Your task to perform on an android device: toggle data saver in the chrome app Image 0: 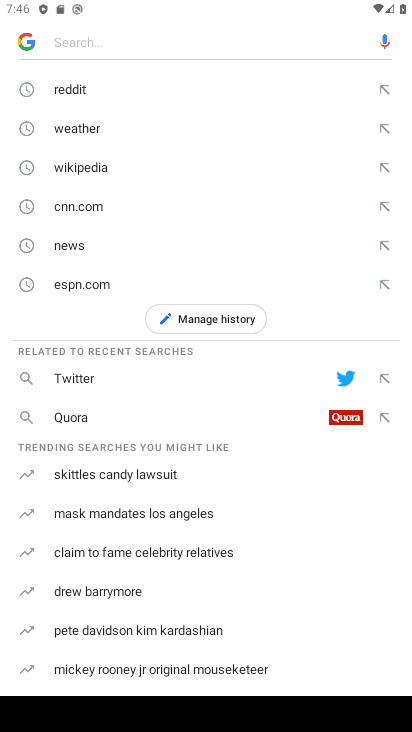
Step 0: press home button
Your task to perform on an android device: toggle data saver in the chrome app Image 1: 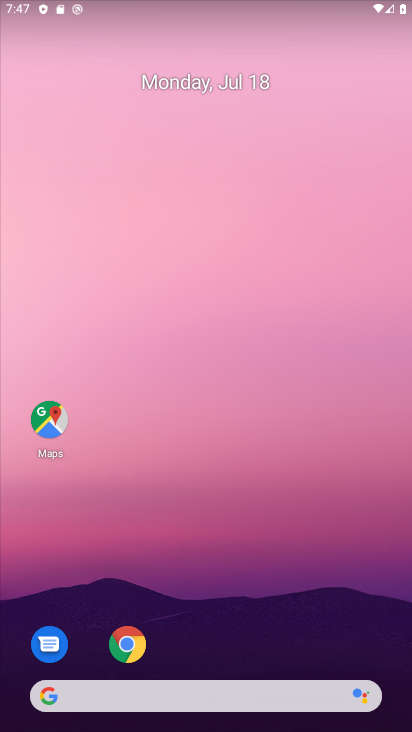
Step 1: click (128, 638)
Your task to perform on an android device: toggle data saver in the chrome app Image 2: 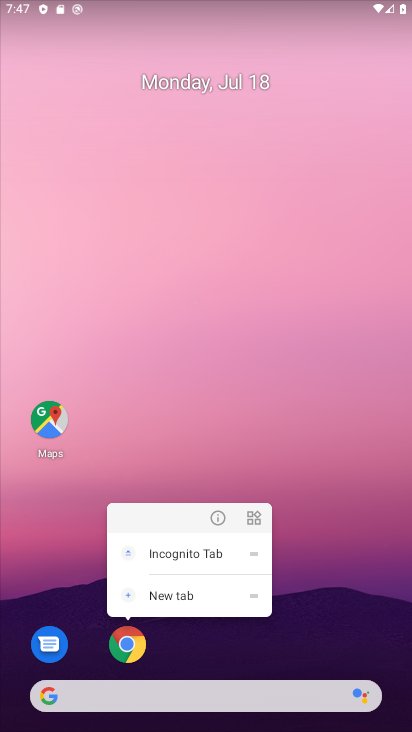
Step 2: click (123, 640)
Your task to perform on an android device: toggle data saver in the chrome app Image 3: 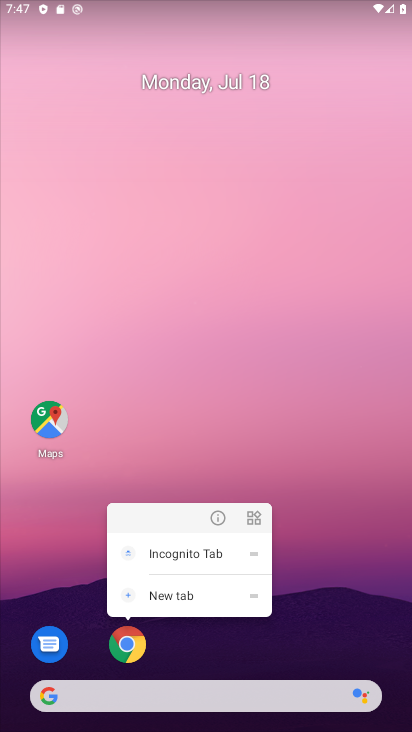
Step 3: click (132, 638)
Your task to perform on an android device: toggle data saver in the chrome app Image 4: 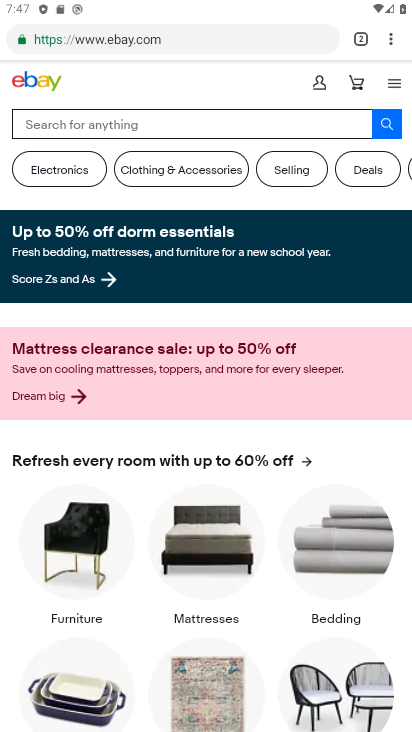
Step 4: click (389, 35)
Your task to perform on an android device: toggle data saver in the chrome app Image 5: 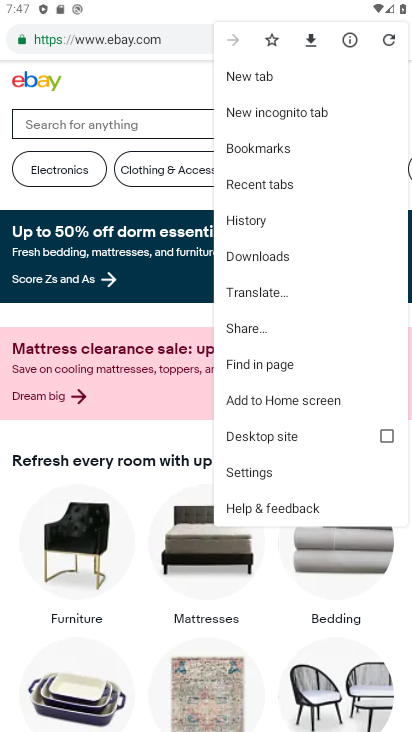
Step 5: click (273, 477)
Your task to perform on an android device: toggle data saver in the chrome app Image 6: 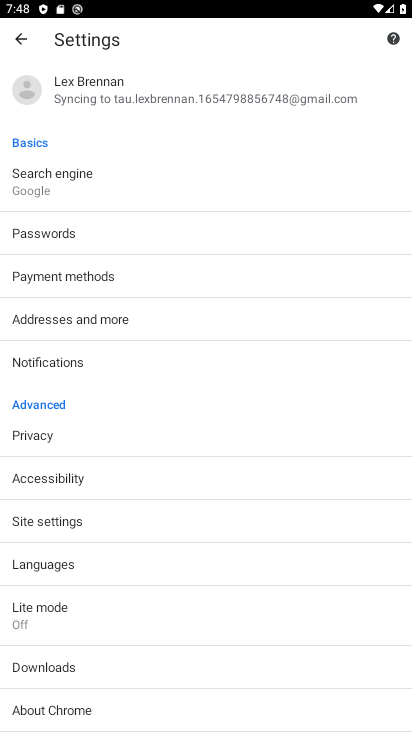
Step 6: click (58, 620)
Your task to perform on an android device: toggle data saver in the chrome app Image 7: 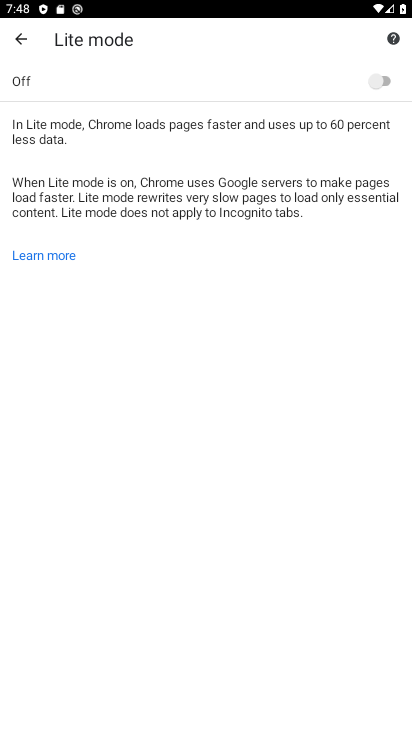
Step 7: click (377, 79)
Your task to perform on an android device: toggle data saver in the chrome app Image 8: 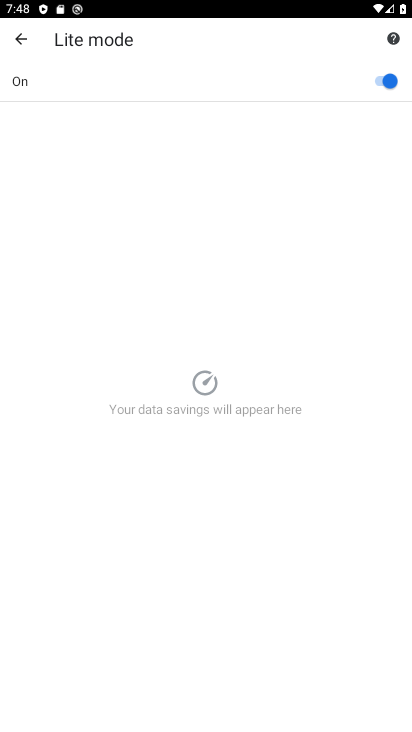
Step 8: task complete